Your task to perform on an android device: turn on sleep mode Image 0: 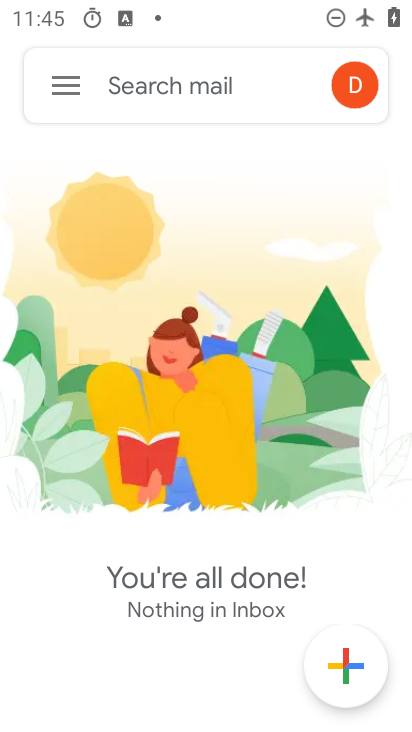
Step 0: press home button
Your task to perform on an android device: turn on sleep mode Image 1: 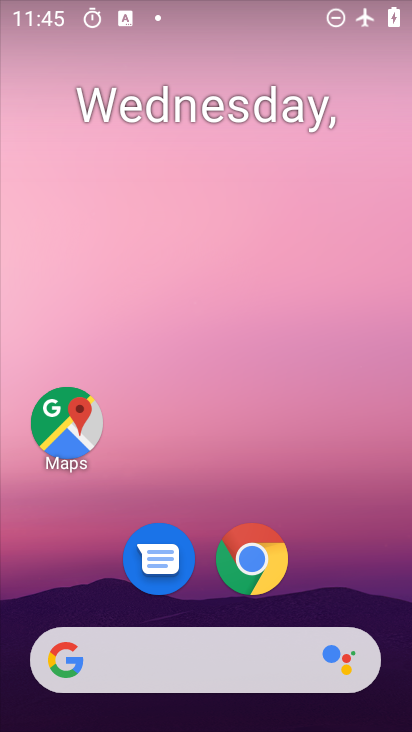
Step 1: drag from (168, 562) to (203, 139)
Your task to perform on an android device: turn on sleep mode Image 2: 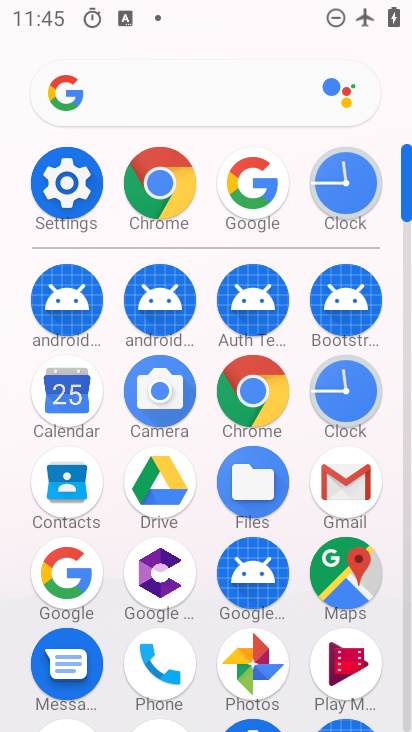
Step 2: click (85, 200)
Your task to perform on an android device: turn on sleep mode Image 3: 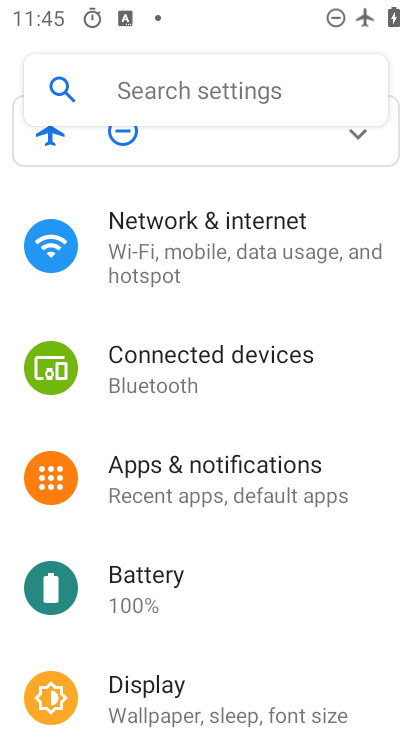
Step 3: click (144, 679)
Your task to perform on an android device: turn on sleep mode Image 4: 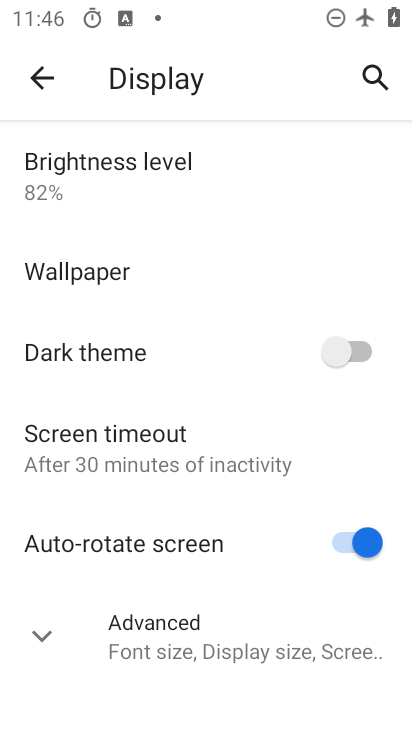
Step 4: click (264, 647)
Your task to perform on an android device: turn on sleep mode Image 5: 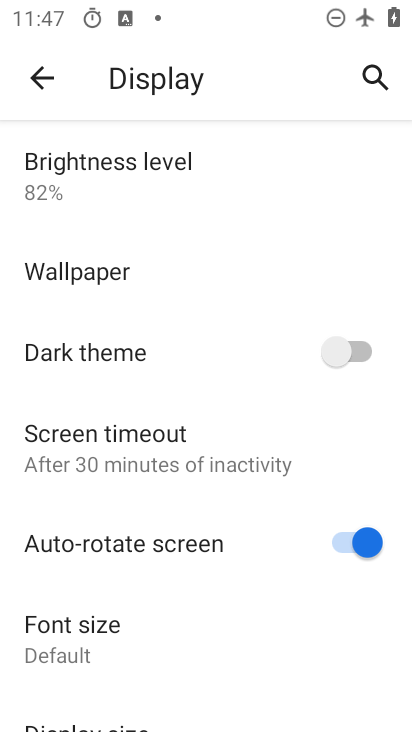
Step 5: task complete